Your task to perform on an android device: Open the Play Movies app and select the watchlist tab. Image 0: 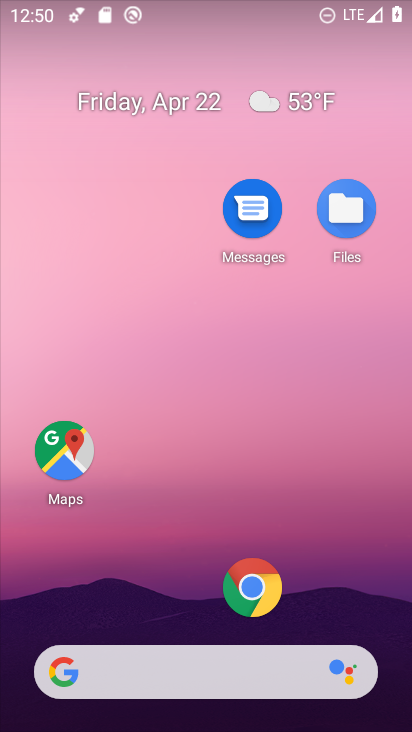
Step 0: drag from (150, 627) to (183, 248)
Your task to perform on an android device: Open the Play Movies app and select the watchlist tab. Image 1: 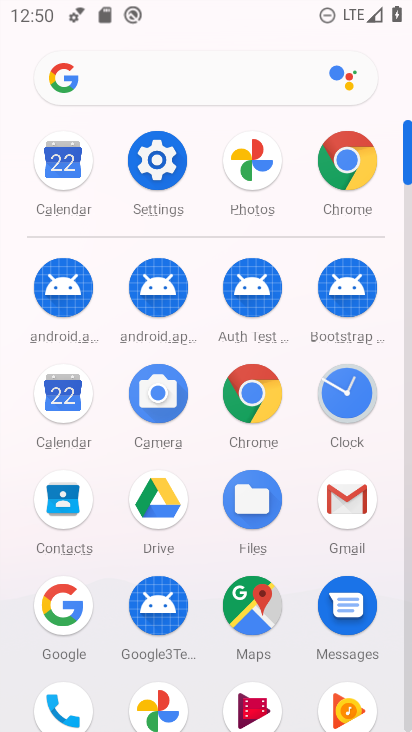
Step 1: drag from (295, 679) to (349, 440)
Your task to perform on an android device: Open the Play Movies app and select the watchlist tab. Image 2: 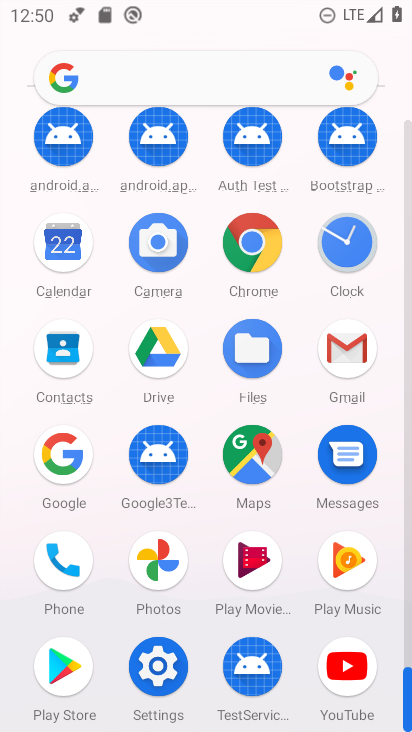
Step 2: click (254, 555)
Your task to perform on an android device: Open the Play Movies app and select the watchlist tab. Image 3: 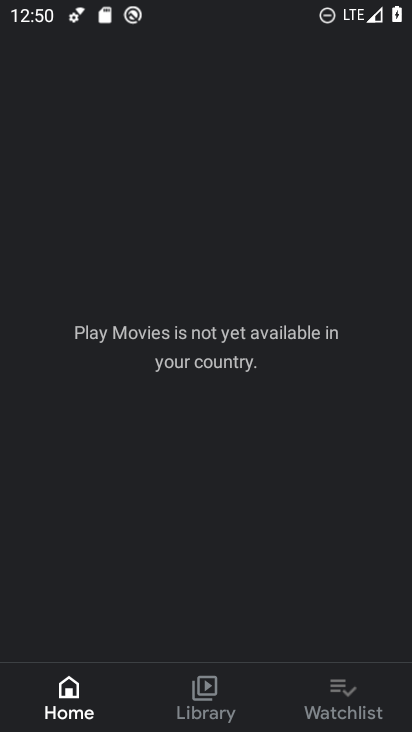
Step 3: click (331, 705)
Your task to perform on an android device: Open the Play Movies app and select the watchlist tab. Image 4: 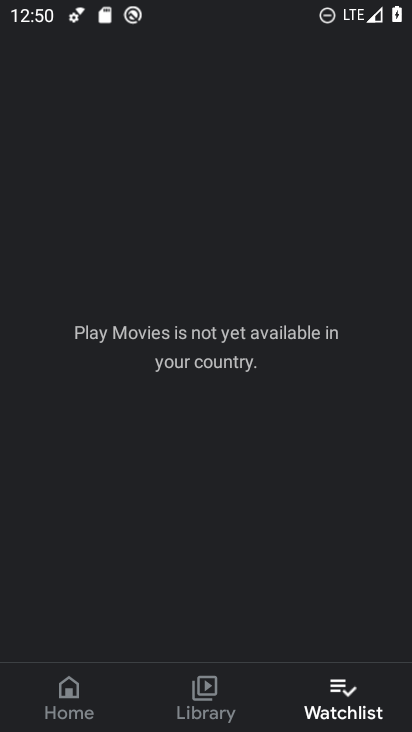
Step 4: task complete